Your task to perform on an android device: turn on the 24-hour format for clock Image 0: 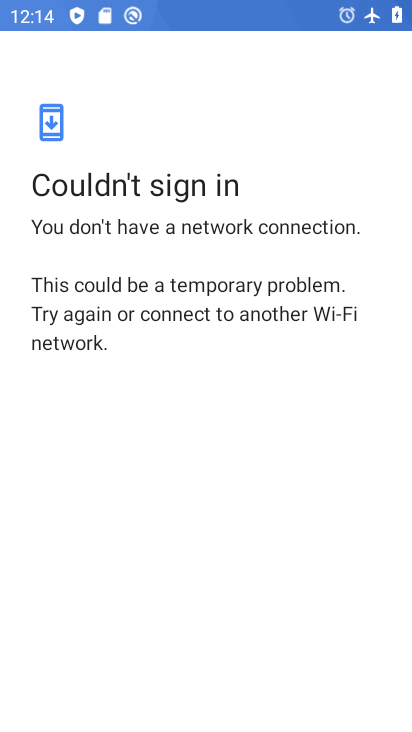
Step 0: press home button
Your task to perform on an android device: turn on the 24-hour format for clock Image 1: 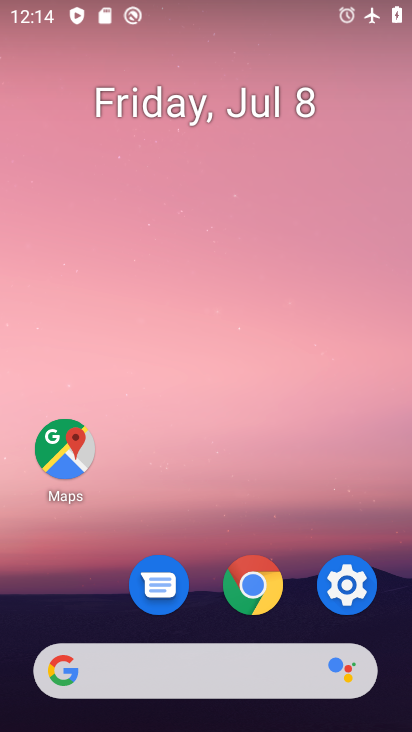
Step 1: drag from (243, 712) to (332, 313)
Your task to perform on an android device: turn on the 24-hour format for clock Image 2: 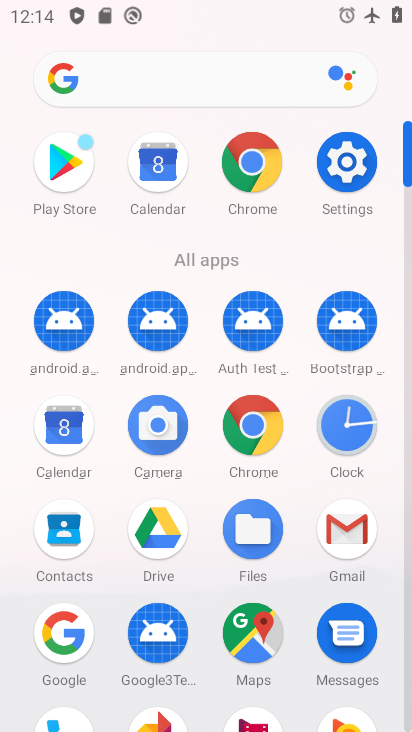
Step 2: click (353, 175)
Your task to perform on an android device: turn on the 24-hour format for clock Image 3: 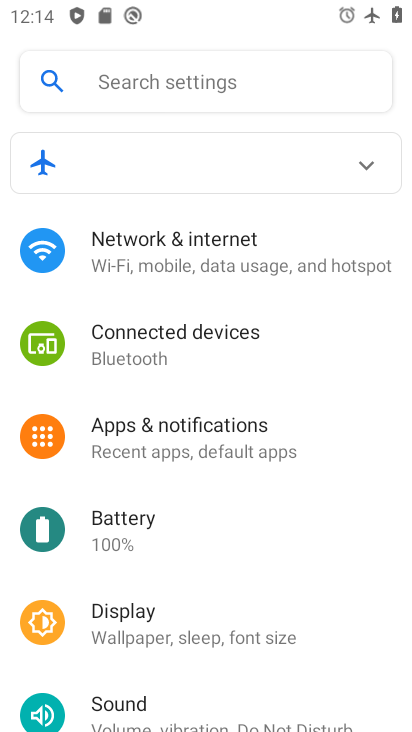
Step 3: press home button
Your task to perform on an android device: turn on the 24-hour format for clock Image 4: 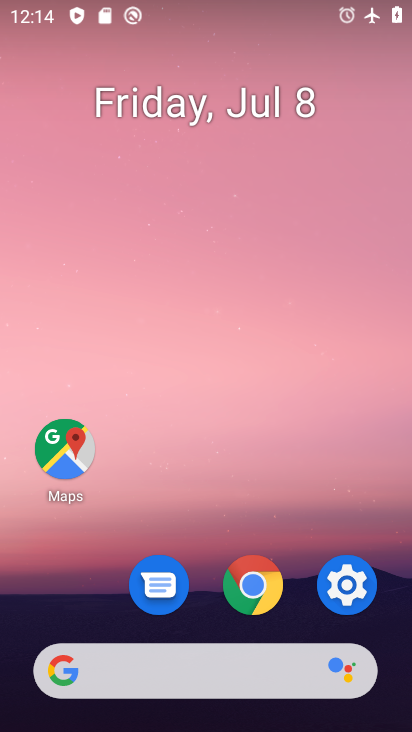
Step 4: drag from (232, 682) to (335, 188)
Your task to perform on an android device: turn on the 24-hour format for clock Image 5: 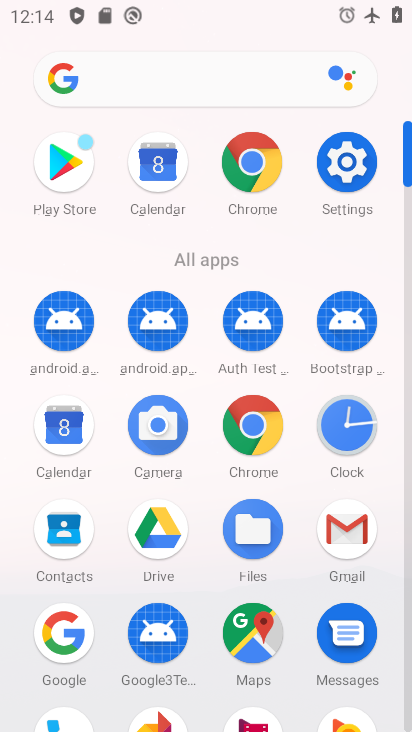
Step 5: click (343, 426)
Your task to perform on an android device: turn on the 24-hour format for clock Image 6: 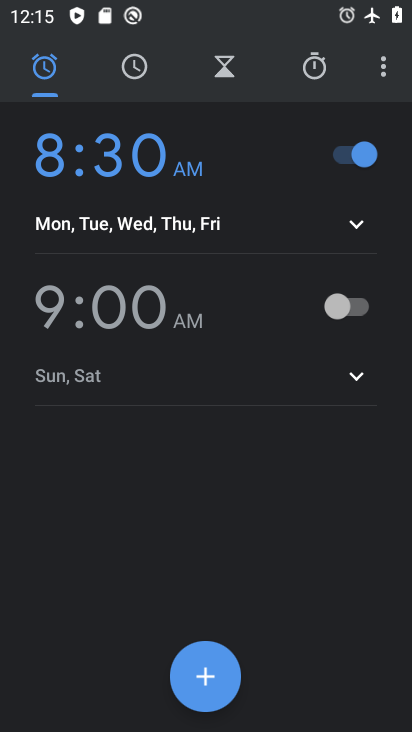
Step 6: click (376, 63)
Your task to perform on an android device: turn on the 24-hour format for clock Image 7: 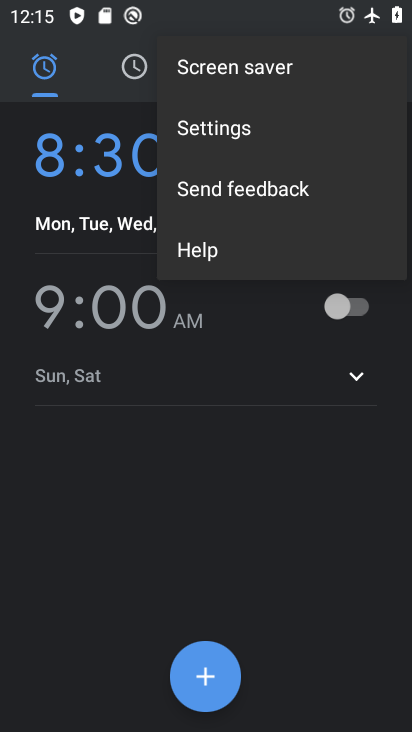
Step 7: click (245, 134)
Your task to perform on an android device: turn on the 24-hour format for clock Image 8: 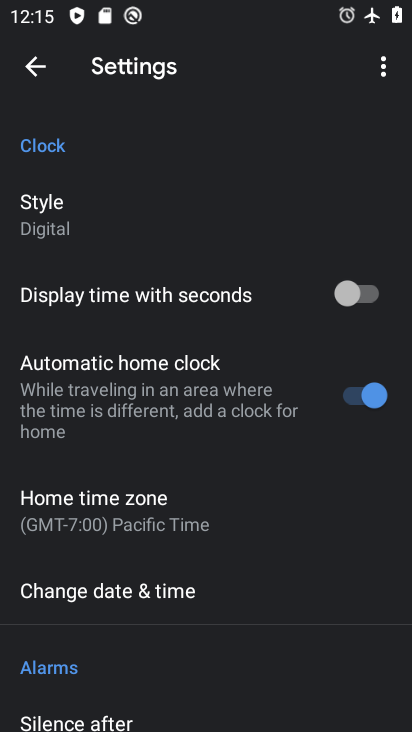
Step 8: click (180, 588)
Your task to perform on an android device: turn on the 24-hour format for clock Image 9: 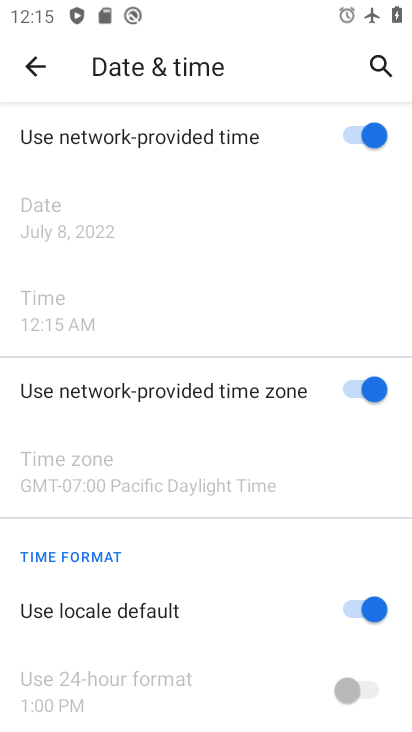
Step 9: drag from (248, 527) to (303, 312)
Your task to perform on an android device: turn on the 24-hour format for clock Image 10: 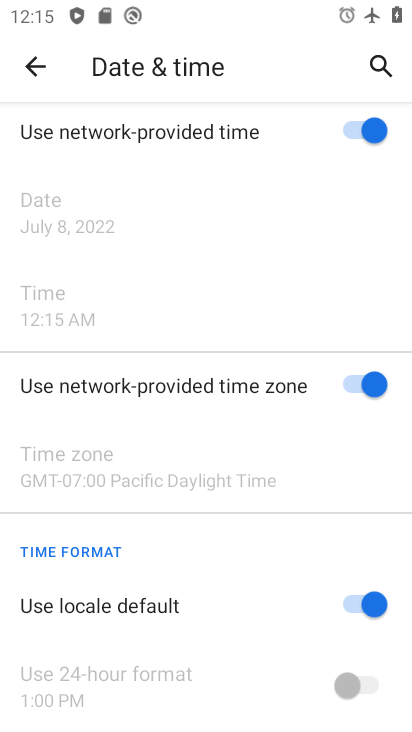
Step 10: click (369, 614)
Your task to perform on an android device: turn on the 24-hour format for clock Image 11: 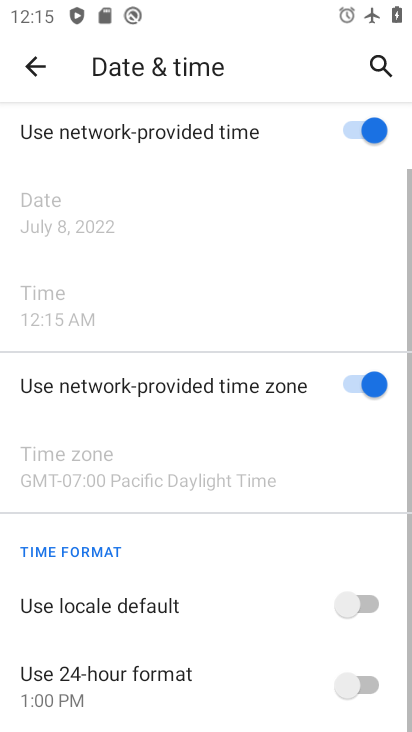
Step 11: click (365, 677)
Your task to perform on an android device: turn on the 24-hour format for clock Image 12: 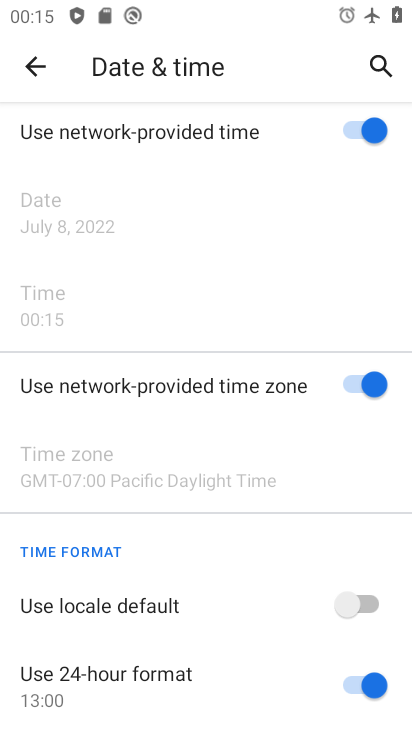
Step 12: task complete